Your task to perform on an android device: Open the calendar app, open the side menu, and click the "Day" option Image 0: 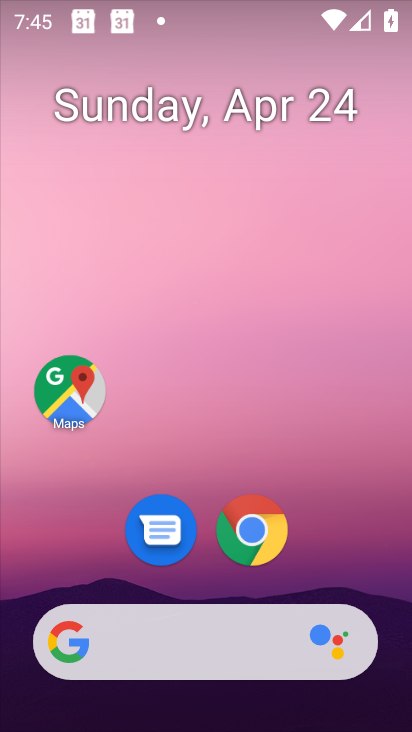
Step 0: click (190, 117)
Your task to perform on an android device: Open the calendar app, open the side menu, and click the "Day" option Image 1: 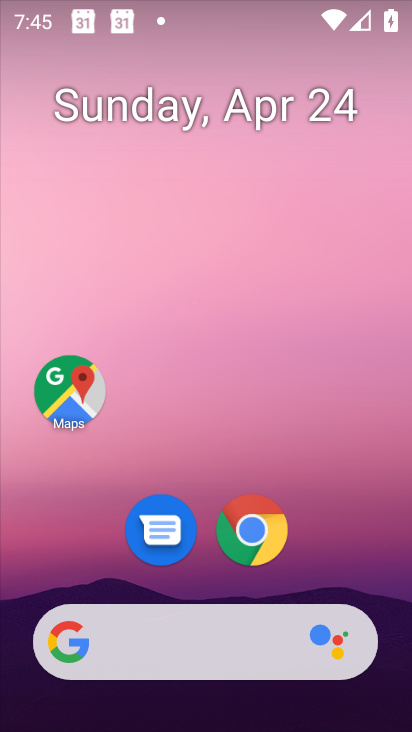
Step 1: click (194, 121)
Your task to perform on an android device: Open the calendar app, open the side menu, and click the "Day" option Image 2: 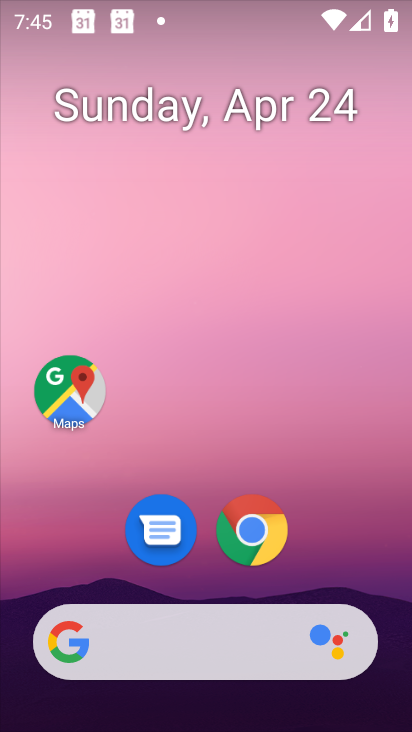
Step 2: click (194, 121)
Your task to perform on an android device: Open the calendar app, open the side menu, and click the "Day" option Image 3: 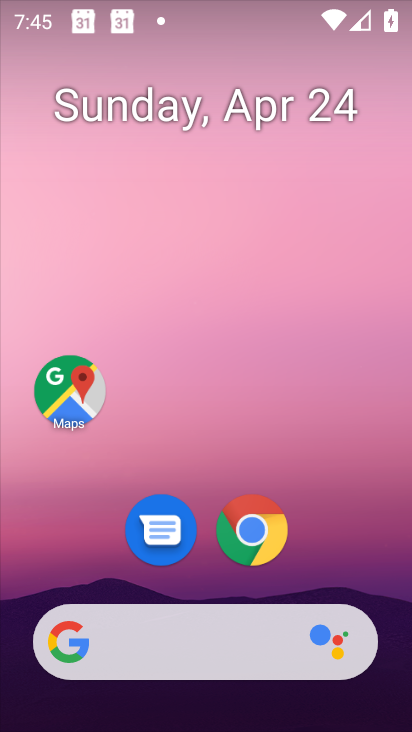
Step 3: click (194, 121)
Your task to perform on an android device: Open the calendar app, open the side menu, and click the "Day" option Image 4: 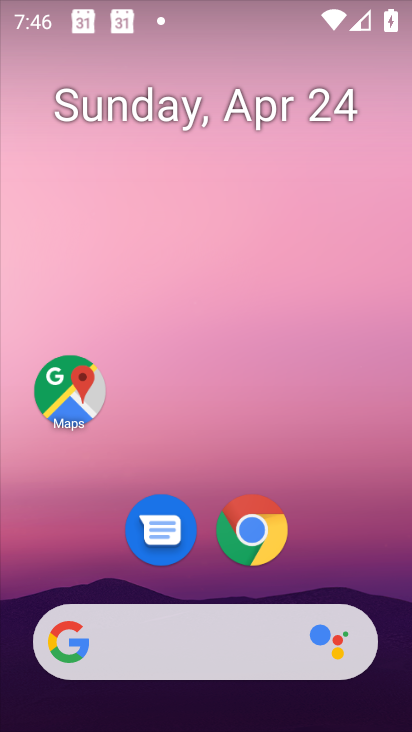
Step 4: click (323, 109)
Your task to perform on an android device: Open the calendar app, open the side menu, and click the "Day" option Image 5: 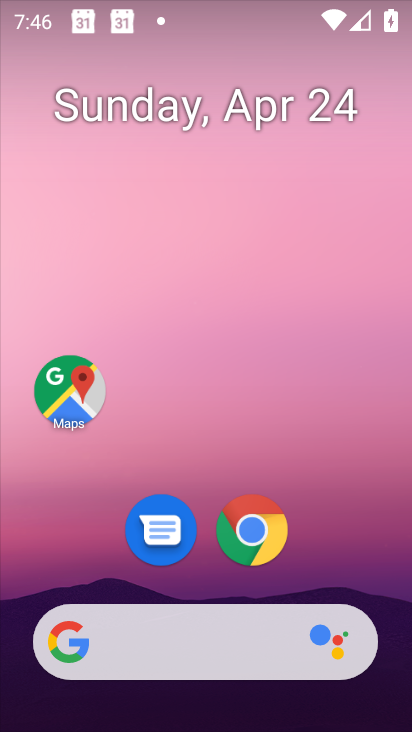
Step 5: drag from (226, 460) to (152, 0)
Your task to perform on an android device: Open the calendar app, open the side menu, and click the "Day" option Image 6: 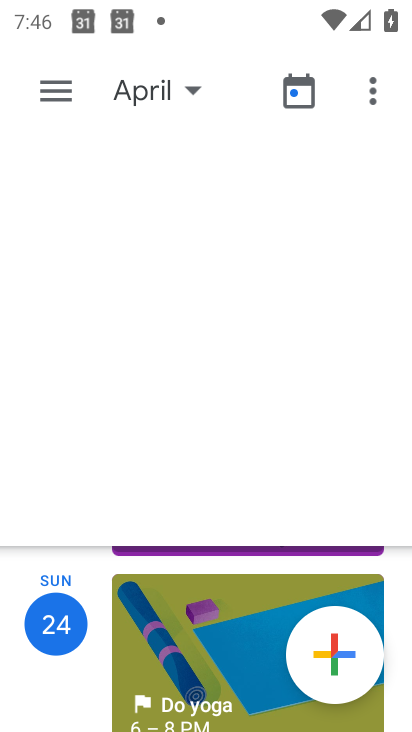
Step 6: click (47, 96)
Your task to perform on an android device: Open the calendar app, open the side menu, and click the "Day" option Image 7: 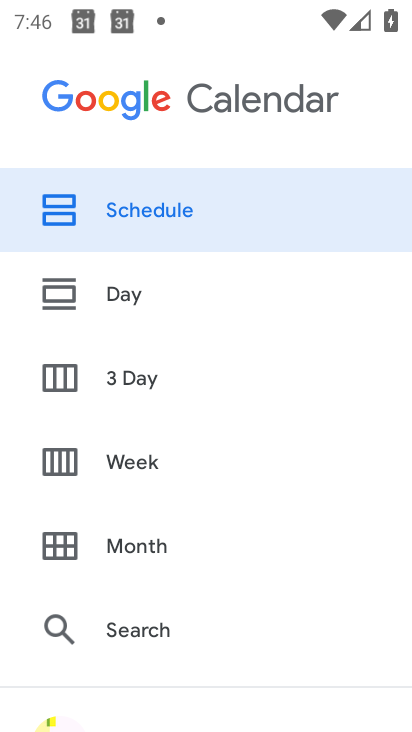
Step 7: click (73, 298)
Your task to perform on an android device: Open the calendar app, open the side menu, and click the "Day" option Image 8: 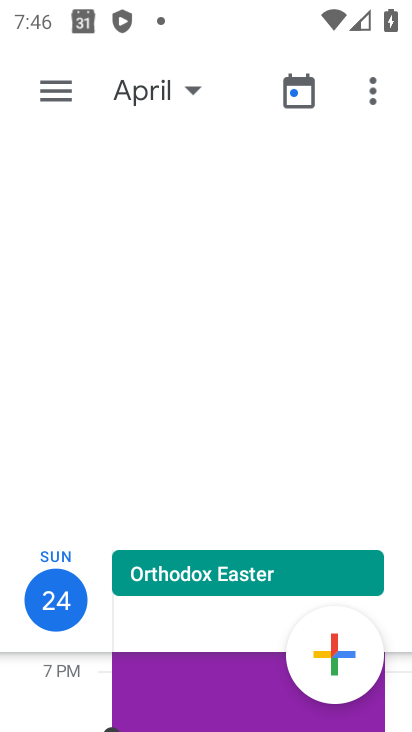
Step 8: click (56, 83)
Your task to perform on an android device: Open the calendar app, open the side menu, and click the "Day" option Image 9: 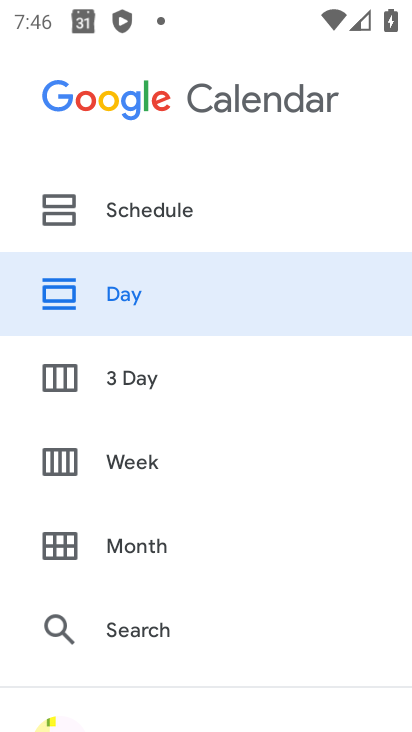
Step 9: click (331, 265)
Your task to perform on an android device: Open the calendar app, open the side menu, and click the "Day" option Image 10: 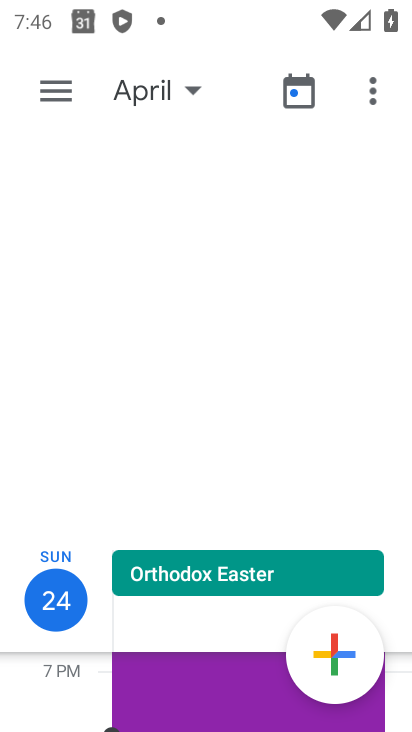
Step 10: task complete